Your task to perform on an android device: turn off translation in the chrome app Image 0: 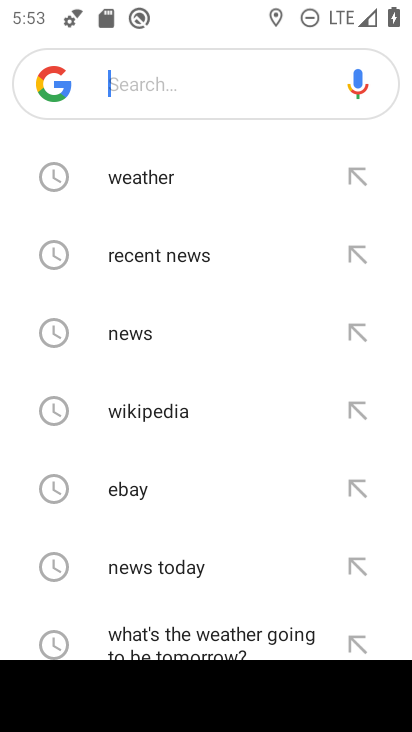
Step 0: press back button
Your task to perform on an android device: turn off translation in the chrome app Image 1: 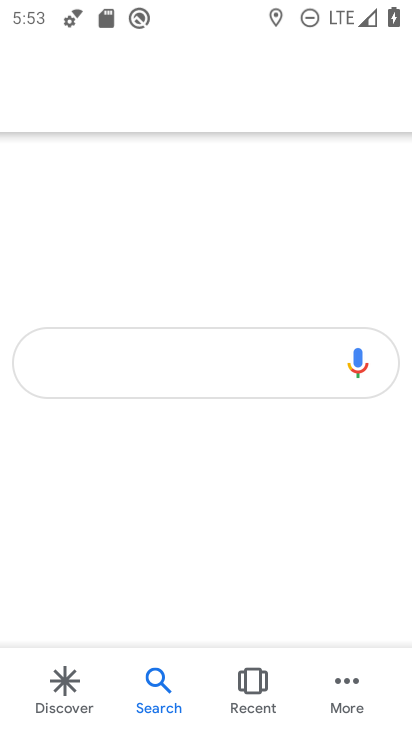
Step 1: press back button
Your task to perform on an android device: turn off translation in the chrome app Image 2: 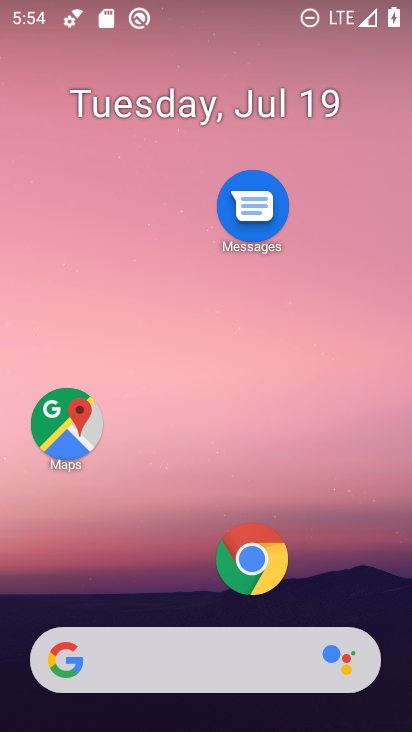
Step 2: click (249, 561)
Your task to perform on an android device: turn off translation in the chrome app Image 3: 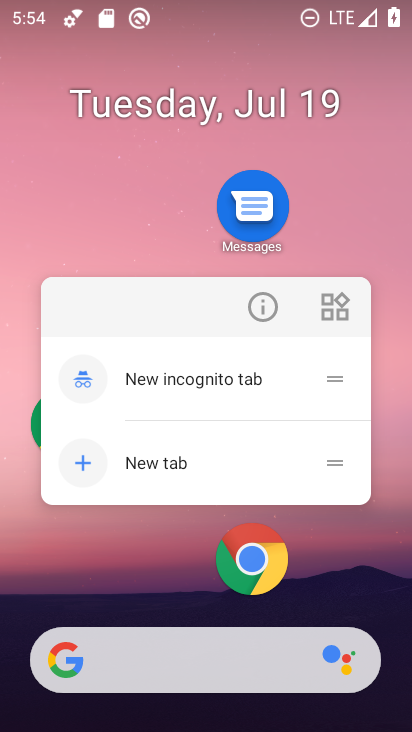
Step 3: click (271, 561)
Your task to perform on an android device: turn off translation in the chrome app Image 4: 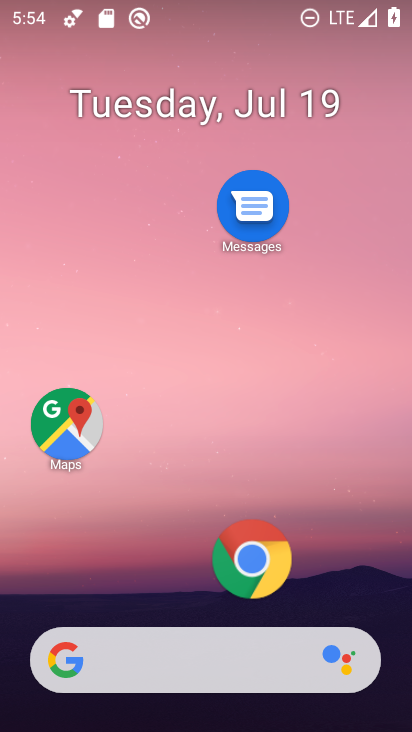
Step 4: click (256, 570)
Your task to perform on an android device: turn off translation in the chrome app Image 5: 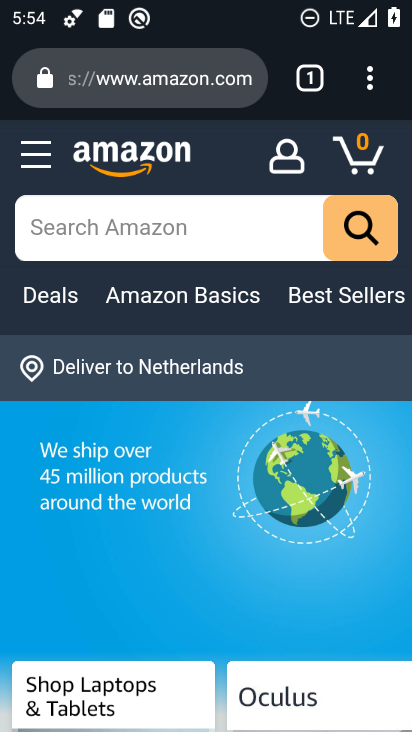
Step 5: drag from (367, 75) to (129, 616)
Your task to perform on an android device: turn off translation in the chrome app Image 6: 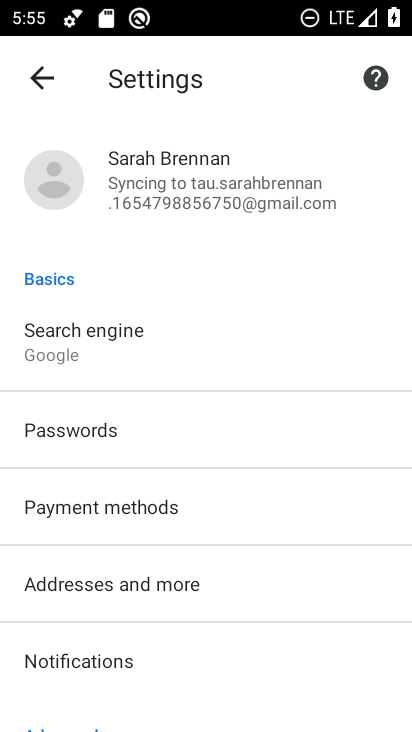
Step 6: drag from (102, 650) to (208, 193)
Your task to perform on an android device: turn off translation in the chrome app Image 7: 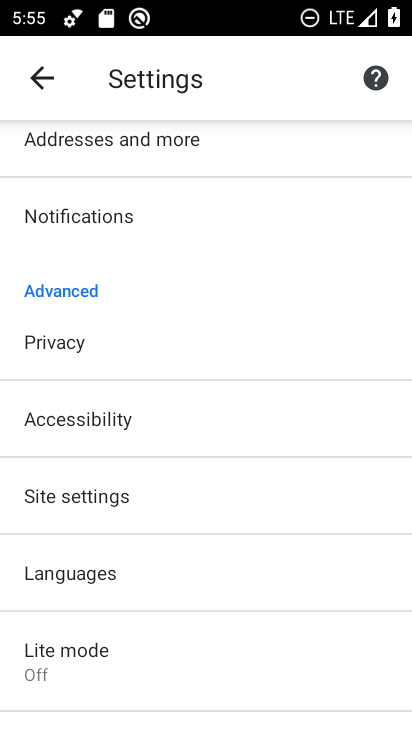
Step 7: click (83, 572)
Your task to perform on an android device: turn off translation in the chrome app Image 8: 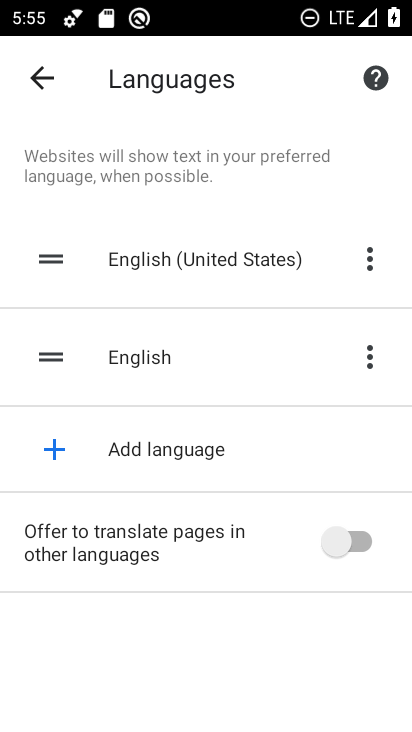
Step 8: task complete